Your task to perform on an android device: Open my contact list Image 0: 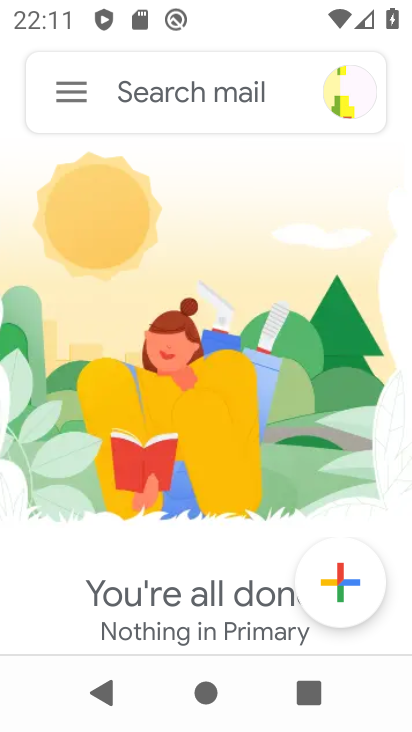
Step 0: press home button
Your task to perform on an android device: Open my contact list Image 1: 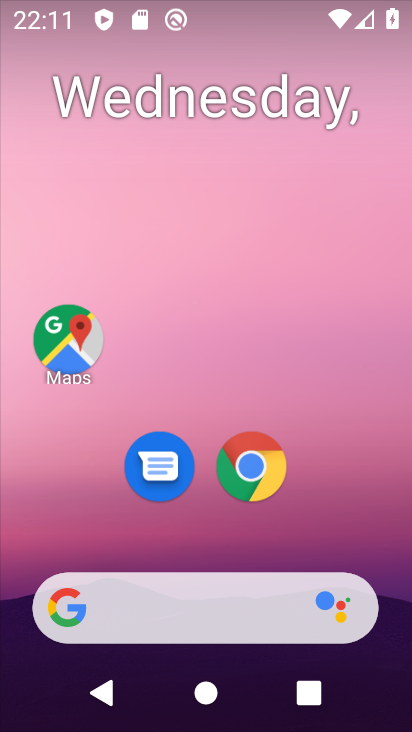
Step 1: drag from (206, 532) to (254, 15)
Your task to perform on an android device: Open my contact list Image 2: 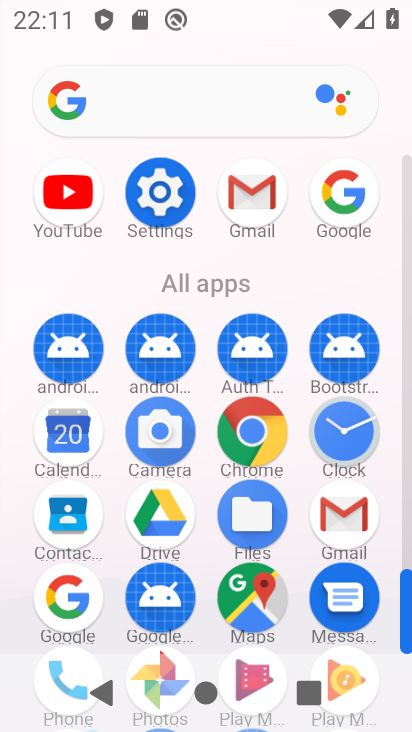
Step 2: click (64, 504)
Your task to perform on an android device: Open my contact list Image 3: 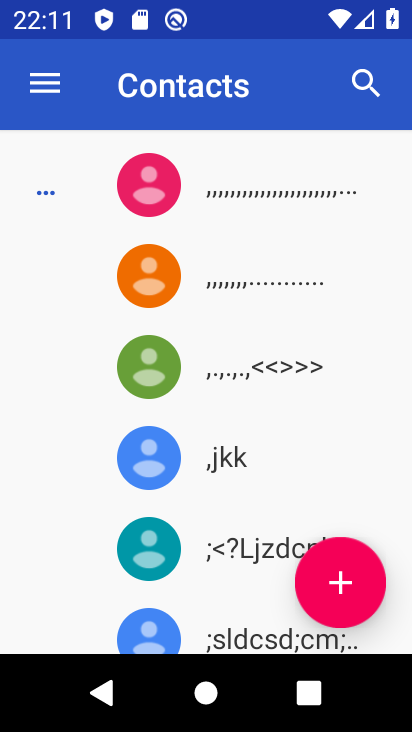
Step 3: task complete